Your task to perform on an android device: read, delete, or share a saved page in the chrome app Image 0: 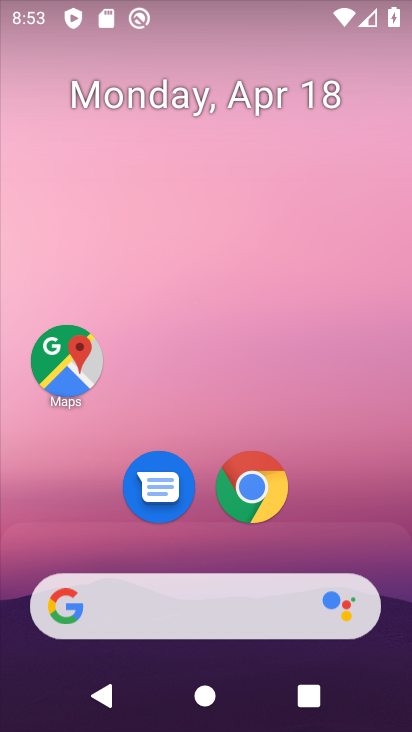
Step 0: drag from (293, 581) to (341, 61)
Your task to perform on an android device: read, delete, or share a saved page in the chrome app Image 1: 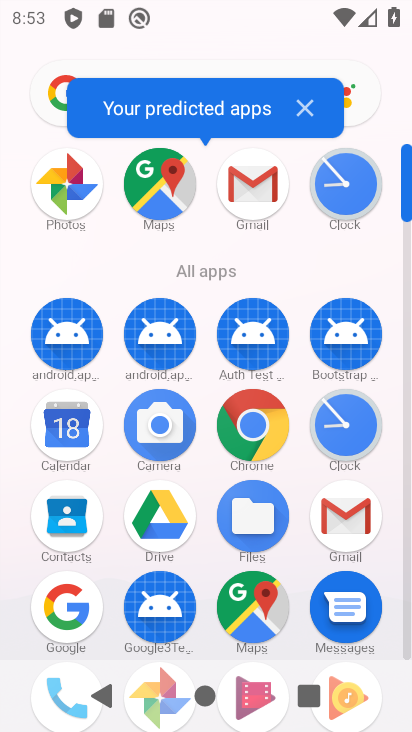
Step 1: click (256, 424)
Your task to perform on an android device: read, delete, or share a saved page in the chrome app Image 2: 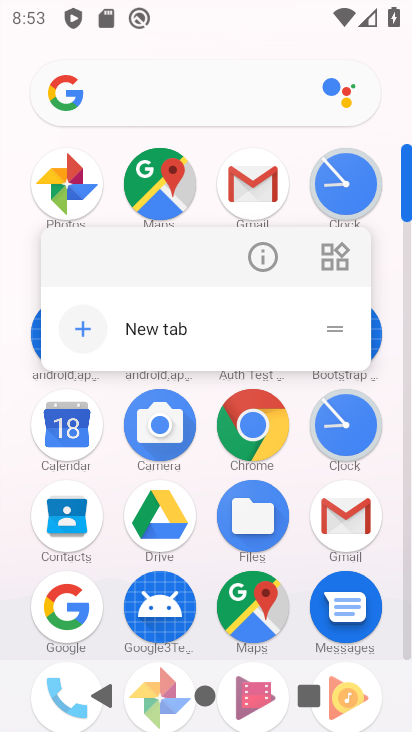
Step 2: click (256, 423)
Your task to perform on an android device: read, delete, or share a saved page in the chrome app Image 3: 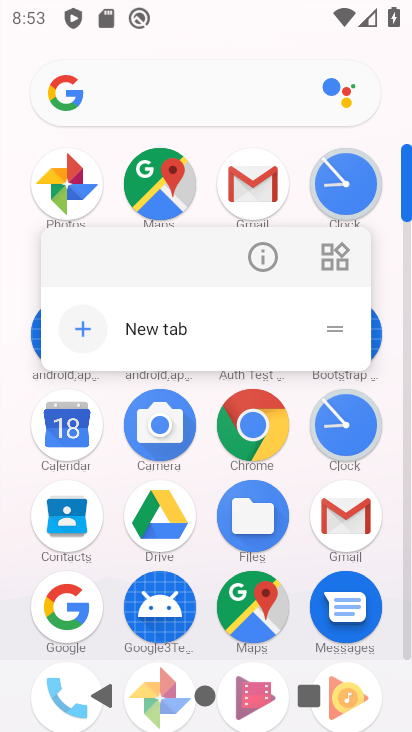
Step 3: click (256, 422)
Your task to perform on an android device: read, delete, or share a saved page in the chrome app Image 4: 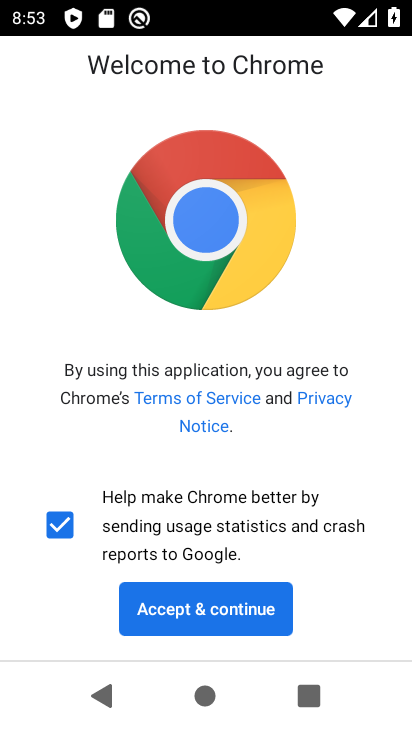
Step 4: click (210, 620)
Your task to perform on an android device: read, delete, or share a saved page in the chrome app Image 5: 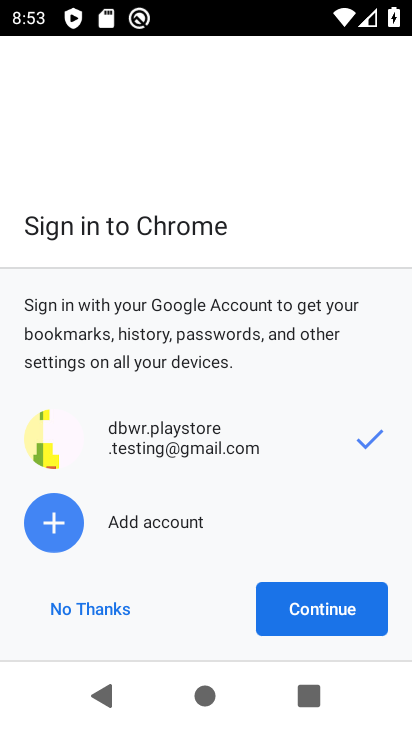
Step 5: click (364, 605)
Your task to perform on an android device: read, delete, or share a saved page in the chrome app Image 6: 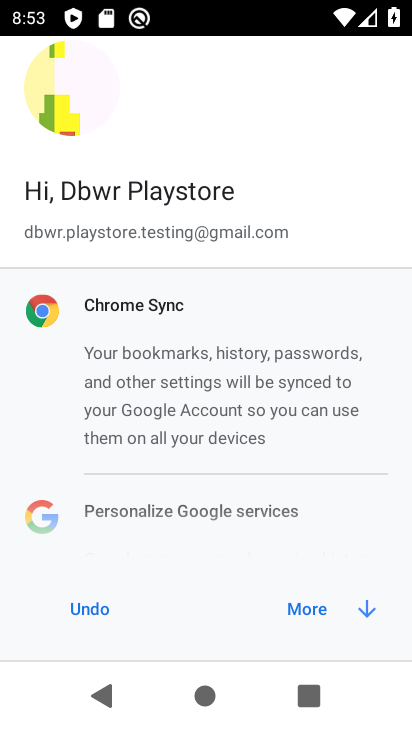
Step 6: click (320, 609)
Your task to perform on an android device: read, delete, or share a saved page in the chrome app Image 7: 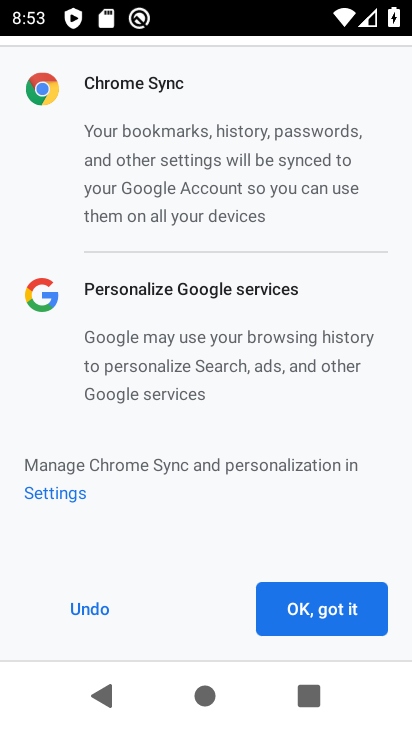
Step 7: click (320, 609)
Your task to perform on an android device: read, delete, or share a saved page in the chrome app Image 8: 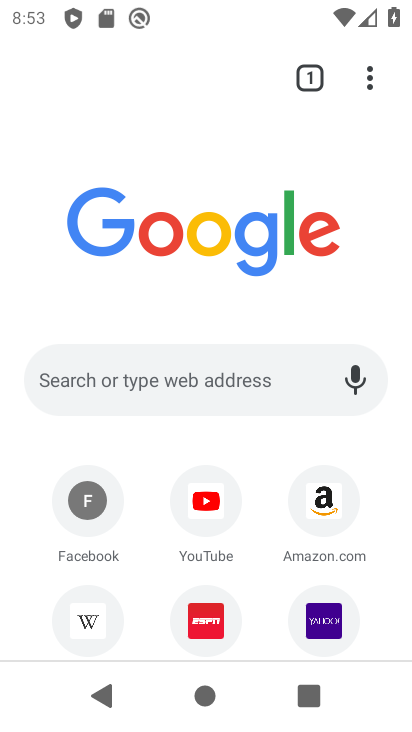
Step 8: click (368, 75)
Your task to perform on an android device: read, delete, or share a saved page in the chrome app Image 9: 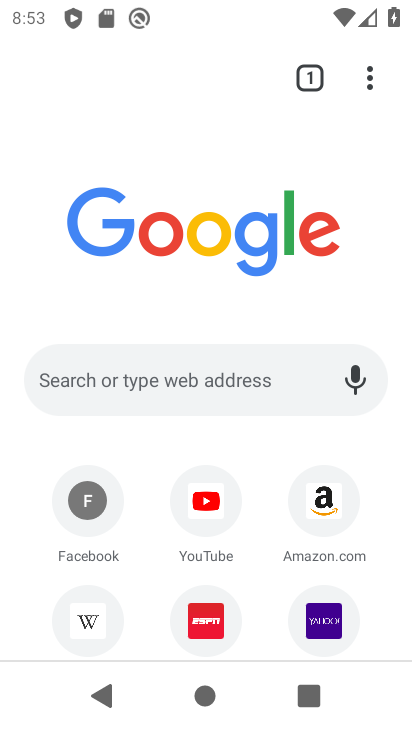
Step 9: click (368, 75)
Your task to perform on an android device: read, delete, or share a saved page in the chrome app Image 10: 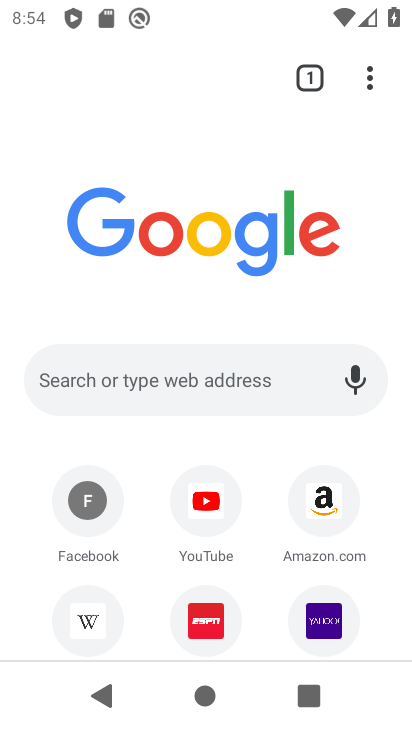
Step 10: click (368, 75)
Your task to perform on an android device: read, delete, or share a saved page in the chrome app Image 11: 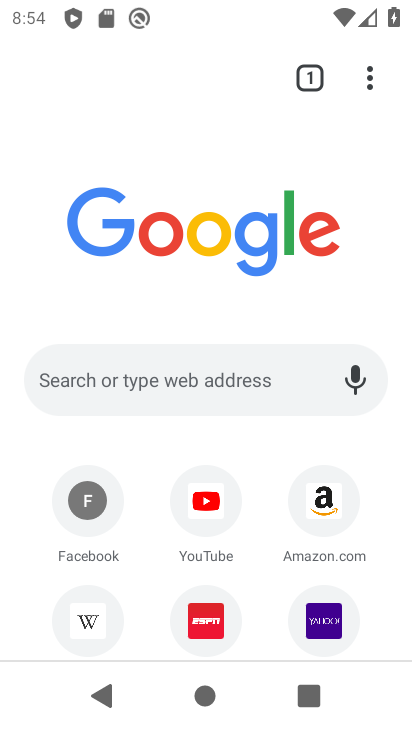
Step 11: click (368, 75)
Your task to perform on an android device: read, delete, or share a saved page in the chrome app Image 12: 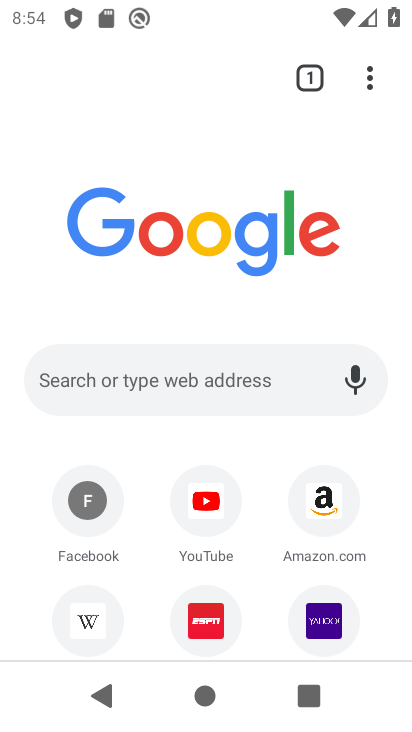
Step 12: click (368, 75)
Your task to perform on an android device: read, delete, or share a saved page in the chrome app Image 13: 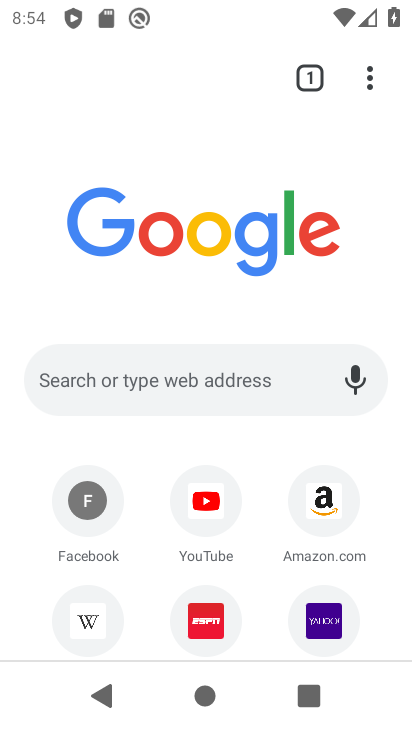
Step 13: click (368, 75)
Your task to perform on an android device: read, delete, or share a saved page in the chrome app Image 14: 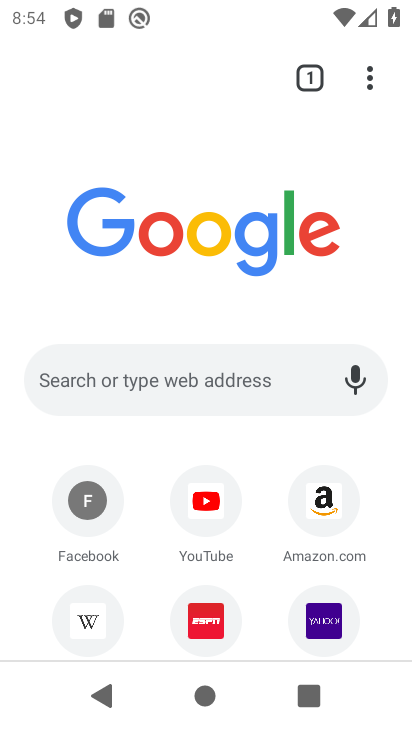
Step 14: click (368, 75)
Your task to perform on an android device: read, delete, or share a saved page in the chrome app Image 15: 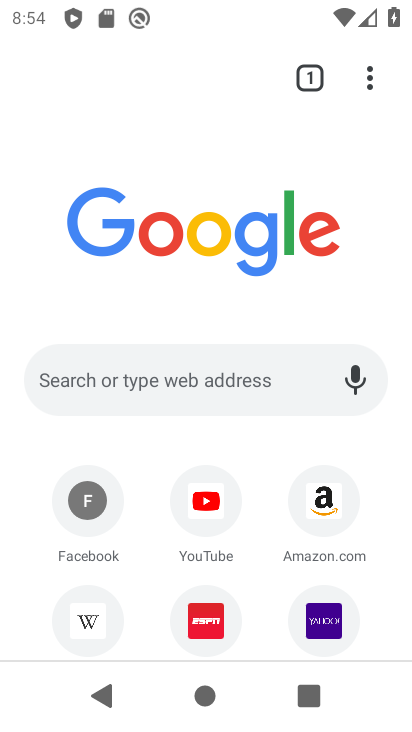
Step 15: click (368, 75)
Your task to perform on an android device: read, delete, or share a saved page in the chrome app Image 16: 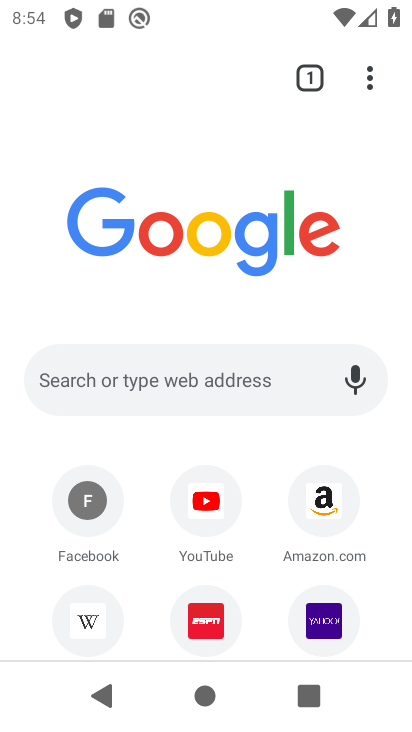
Step 16: click (368, 75)
Your task to perform on an android device: read, delete, or share a saved page in the chrome app Image 17: 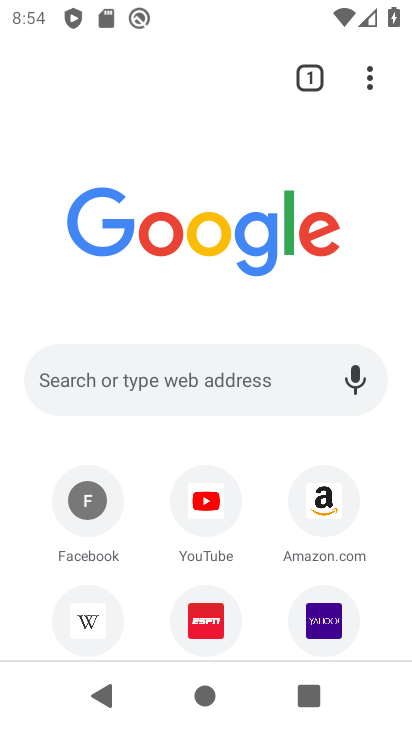
Step 17: click (368, 75)
Your task to perform on an android device: read, delete, or share a saved page in the chrome app Image 18: 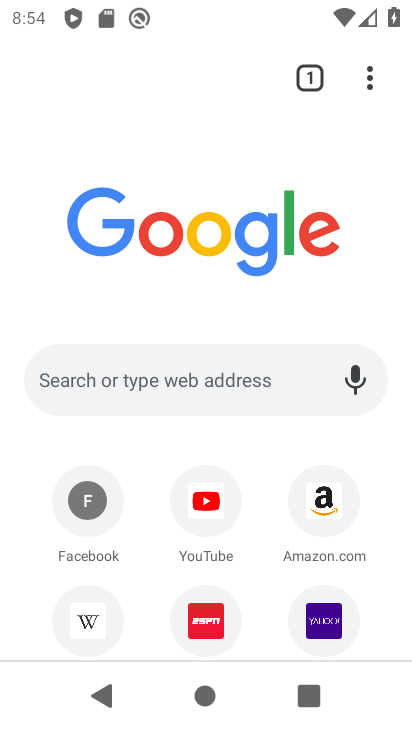
Step 18: click (368, 75)
Your task to perform on an android device: read, delete, or share a saved page in the chrome app Image 19: 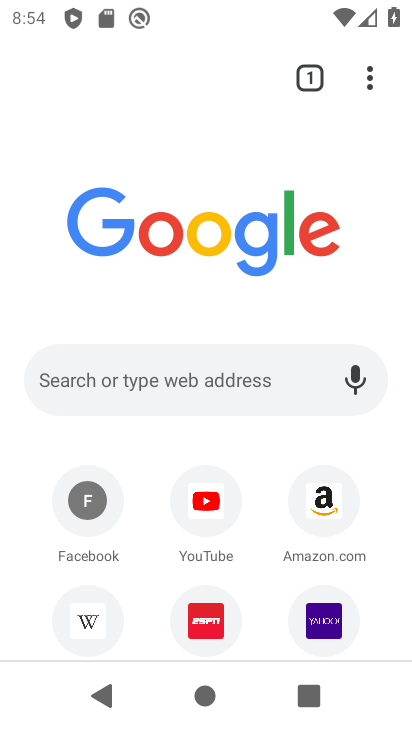
Step 19: click (368, 75)
Your task to perform on an android device: read, delete, or share a saved page in the chrome app Image 20: 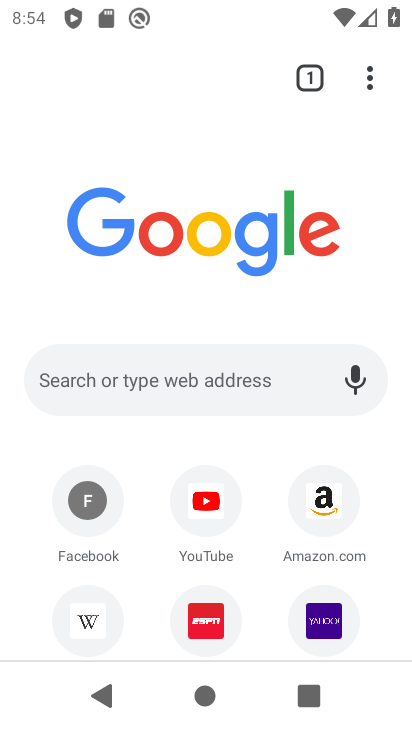
Step 20: click (368, 75)
Your task to perform on an android device: read, delete, or share a saved page in the chrome app Image 21: 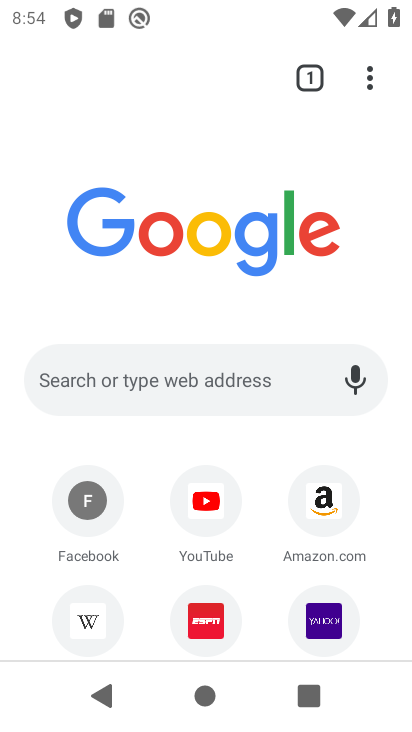
Step 21: click (368, 75)
Your task to perform on an android device: read, delete, or share a saved page in the chrome app Image 22: 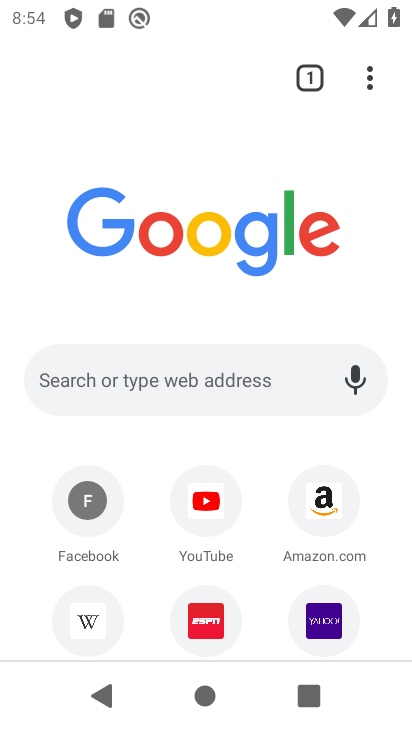
Step 22: click (368, 75)
Your task to perform on an android device: read, delete, or share a saved page in the chrome app Image 23: 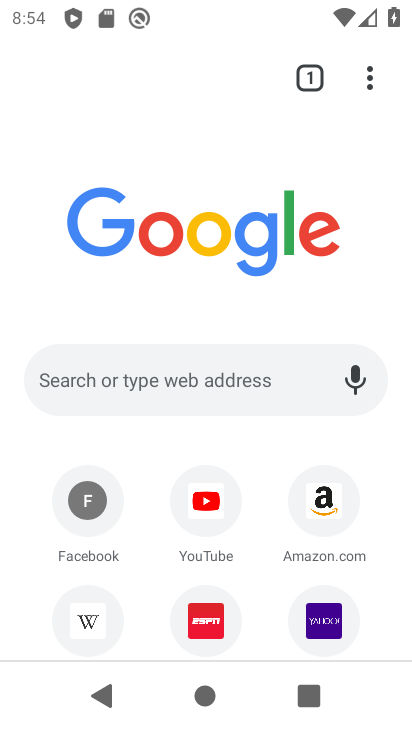
Step 23: click (368, 75)
Your task to perform on an android device: read, delete, or share a saved page in the chrome app Image 24: 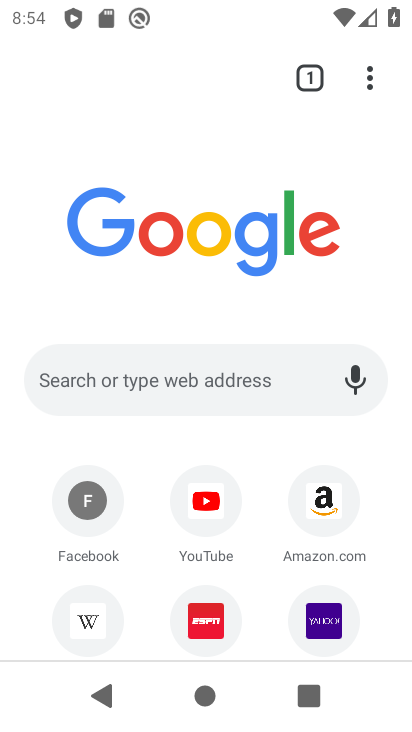
Step 24: task complete